Your task to perform on an android device: turn smart compose on in the gmail app Image 0: 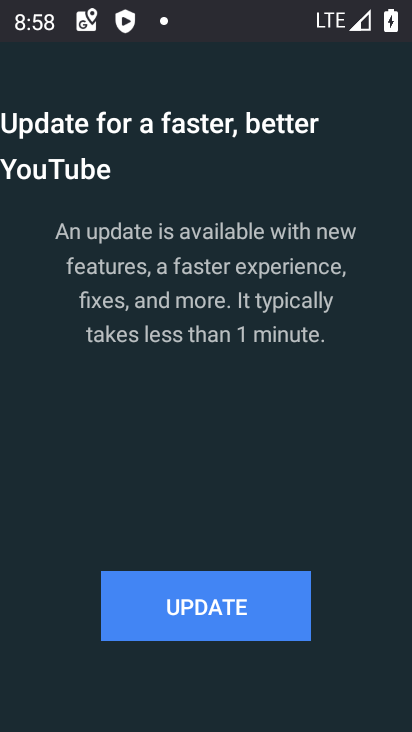
Step 0: press home button
Your task to perform on an android device: turn smart compose on in the gmail app Image 1: 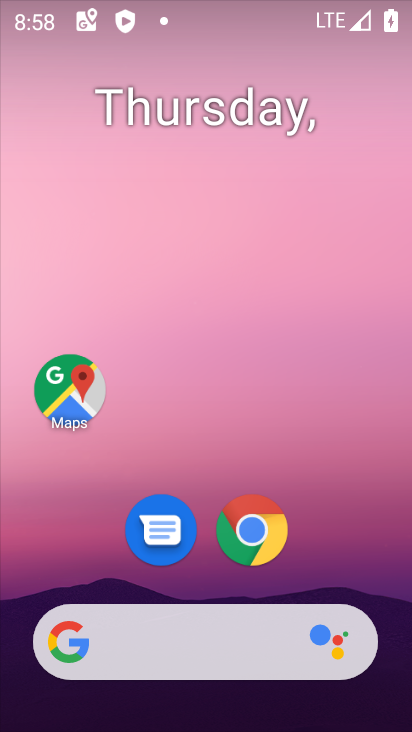
Step 1: drag from (219, 594) to (239, 233)
Your task to perform on an android device: turn smart compose on in the gmail app Image 2: 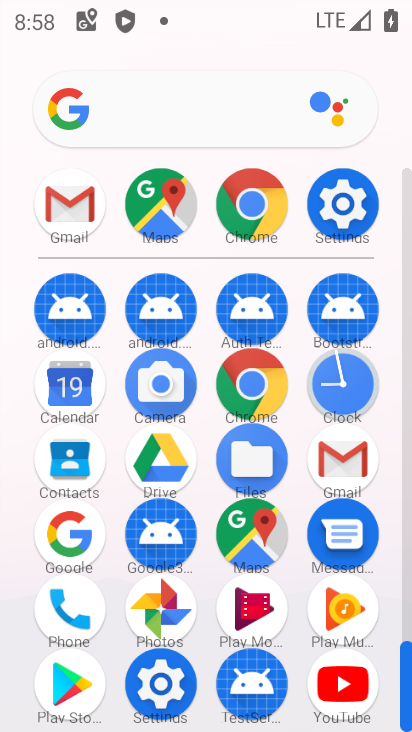
Step 2: click (332, 190)
Your task to perform on an android device: turn smart compose on in the gmail app Image 3: 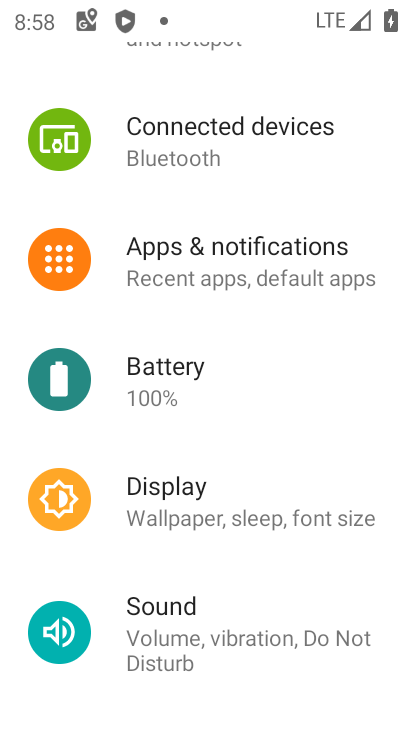
Step 3: press home button
Your task to perform on an android device: turn smart compose on in the gmail app Image 4: 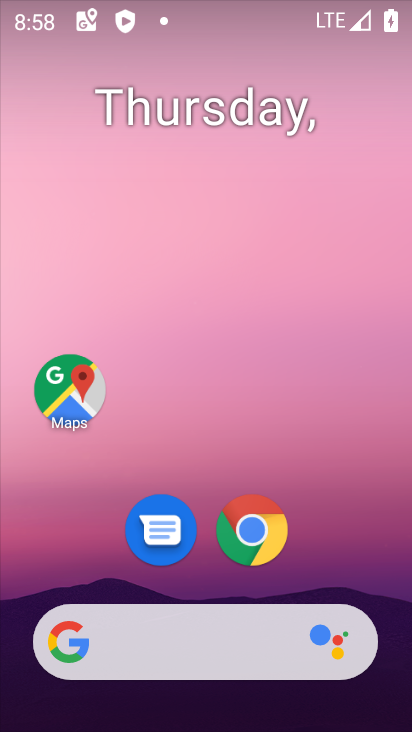
Step 4: drag from (304, 628) to (411, 341)
Your task to perform on an android device: turn smart compose on in the gmail app Image 5: 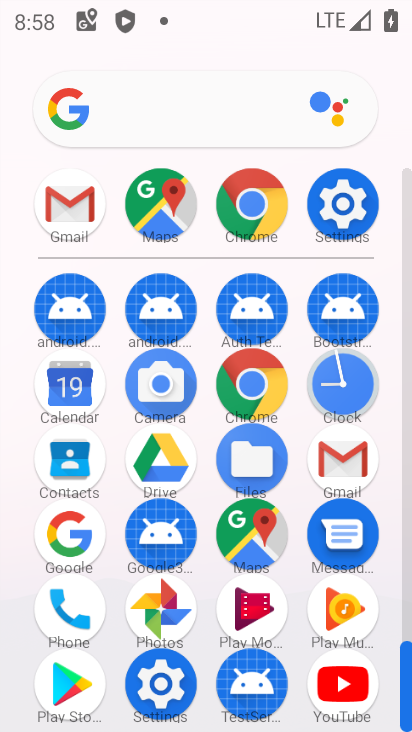
Step 5: click (342, 449)
Your task to perform on an android device: turn smart compose on in the gmail app Image 6: 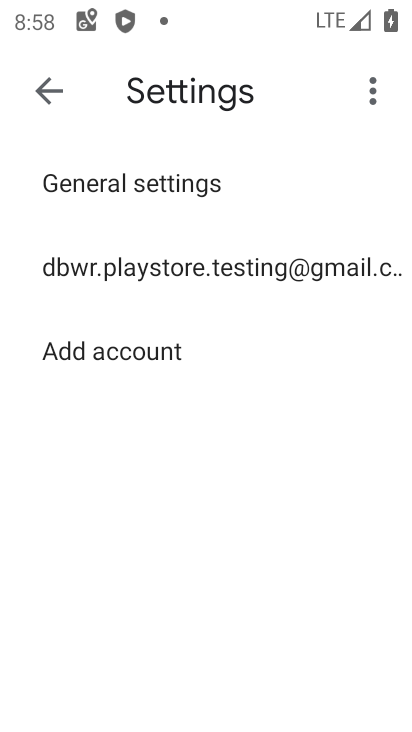
Step 6: click (289, 279)
Your task to perform on an android device: turn smart compose on in the gmail app Image 7: 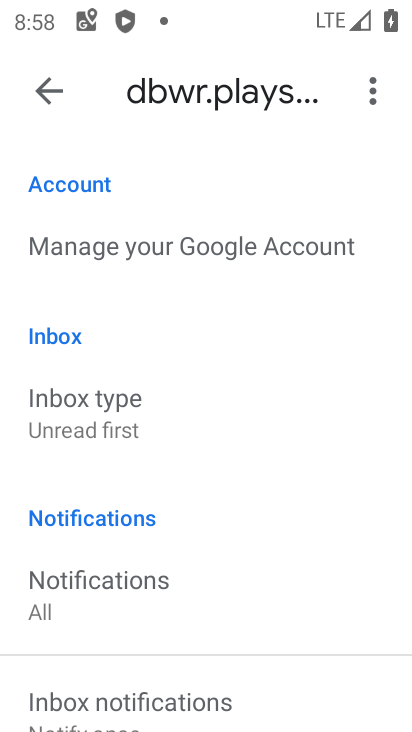
Step 7: task complete